Your task to perform on an android device: choose inbox layout in the gmail app Image 0: 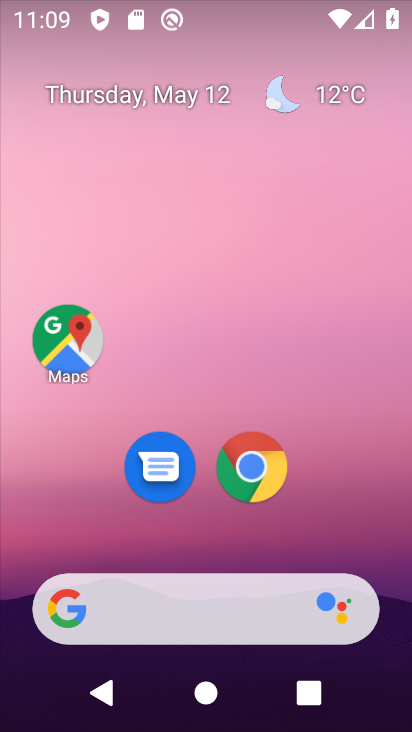
Step 0: drag from (322, 453) to (275, 18)
Your task to perform on an android device: choose inbox layout in the gmail app Image 1: 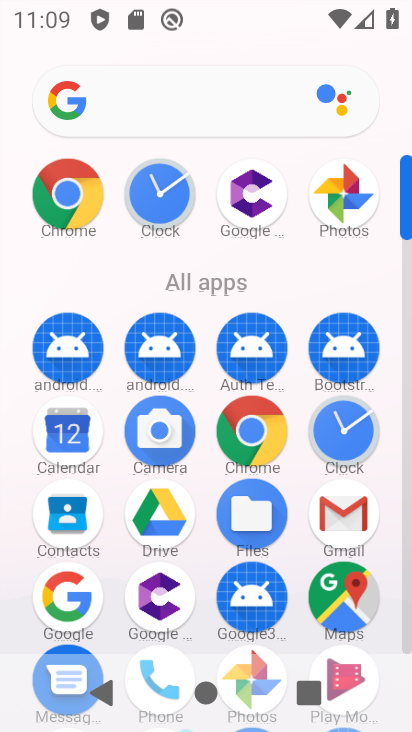
Step 1: drag from (11, 594) to (10, 303)
Your task to perform on an android device: choose inbox layout in the gmail app Image 2: 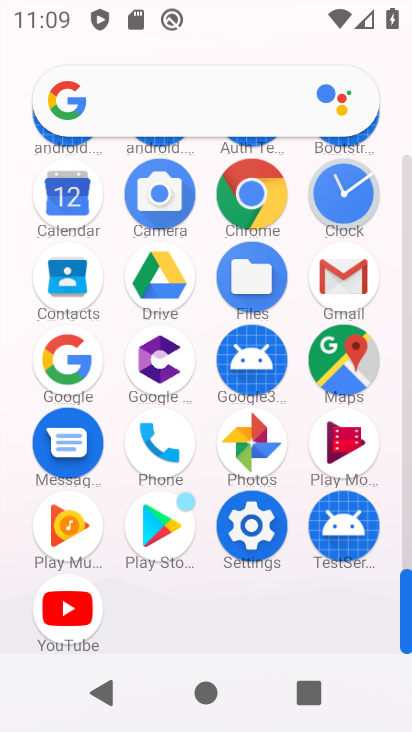
Step 2: click (347, 270)
Your task to perform on an android device: choose inbox layout in the gmail app Image 3: 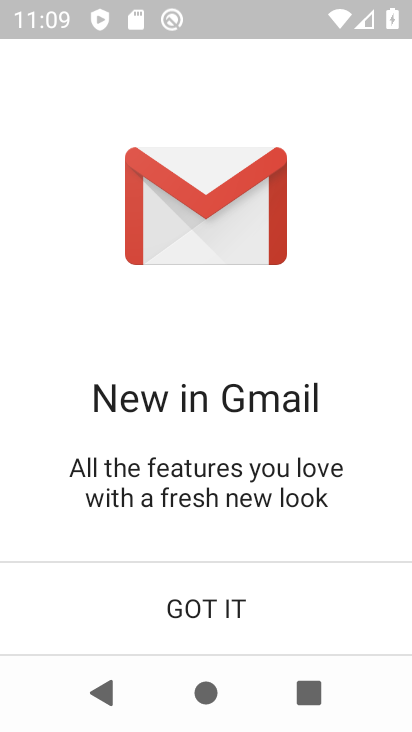
Step 3: click (250, 608)
Your task to perform on an android device: choose inbox layout in the gmail app Image 4: 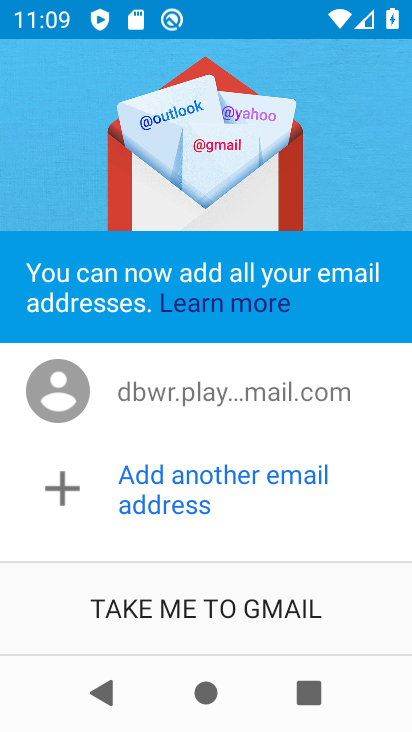
Step 4: click (250, 608)
Your task to perform on an android device: choose inbox layout in the gmail app Image 5: 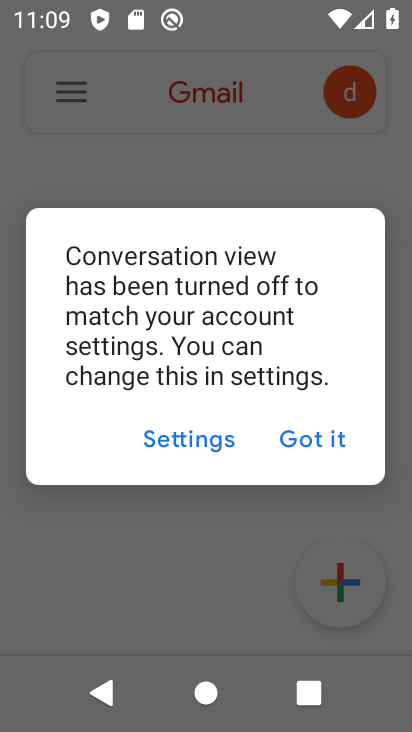
Step 5: click (285, 430)
Your task to perform on an android device: choose inbox layout in the gmail app Image 6: 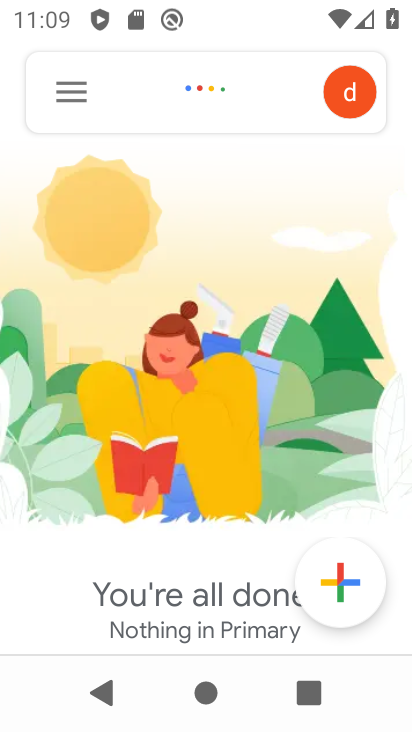
Step 6: click (59, 79)
Your task to perform on an android device: choose inbox layout in the gmail app Image 7: 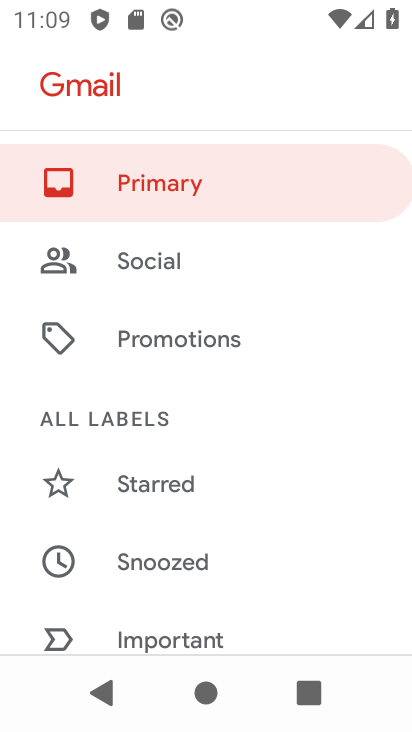
Step 7: drag from (239, 531) to (271, 98)
Your task to perform on an android device: choose inbox layout in the gmail app Image 8: 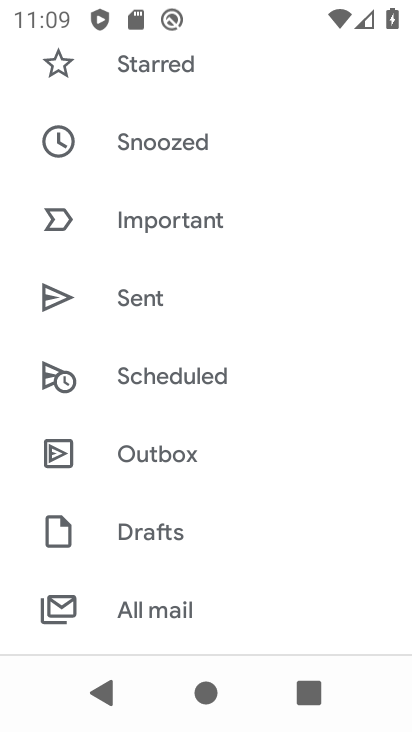
Step 8: drag from (275, 569) to (283, 128)
Your task to perform on an android device: choose inbox layout in the gmail app Image 9: 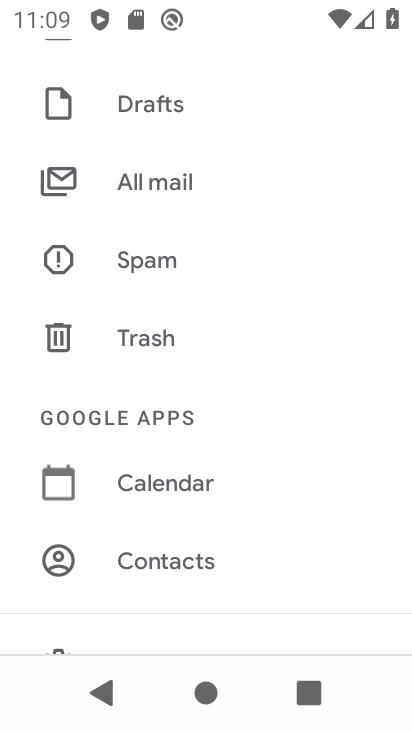
Step 9: drag from (234, 555) to (261, 156)
Your task to perform on an android device: choose inbox layout in the gmail app Image 10: 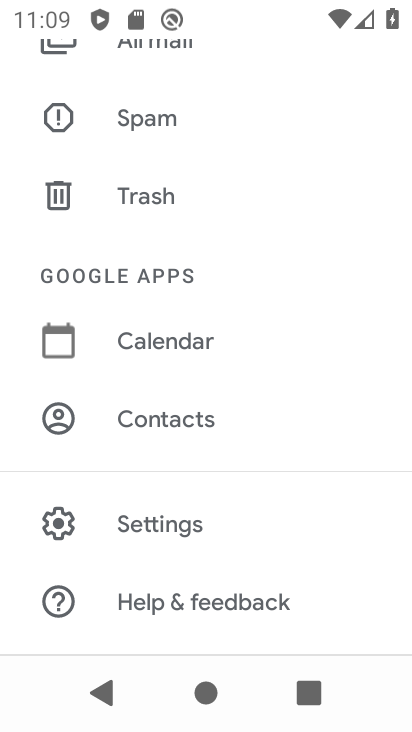
Step 10: click (179, 519)
Your task to perform on an android device: choose inbox layout in the gmail app Image 11: 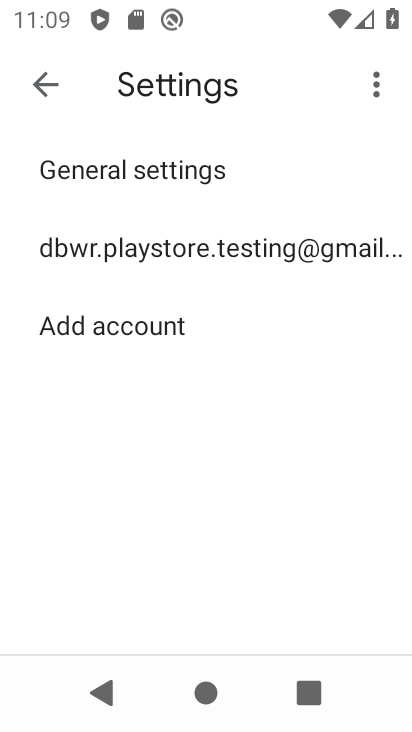
Step 11: click (208, 249)
Your task to perform on an android device: choose inbox layout in the gmail app Image 12: 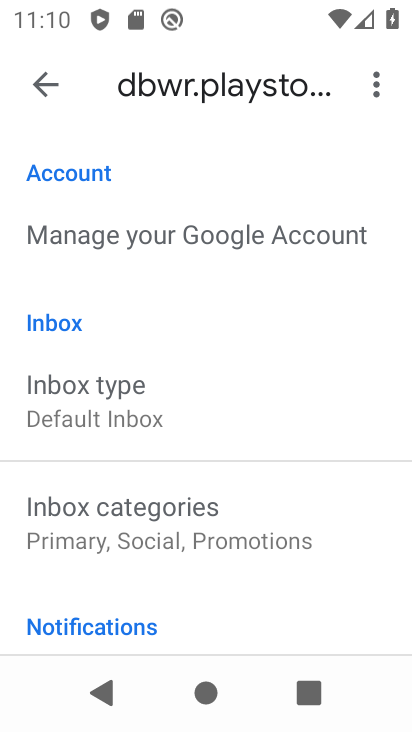
Step 12: click (136, 406)
Your task to perform on an android device: choose inbox layout in the gmail app Image 13: 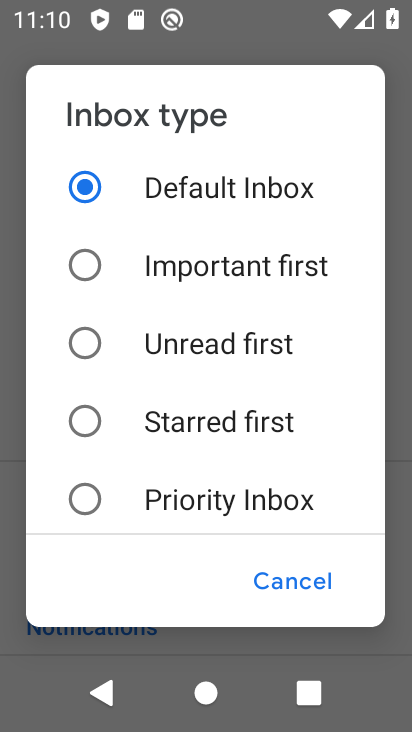
Step 13: click (200, 263)
Your task to perform on an android device: choose inbox layout in the gmail app Image 14: 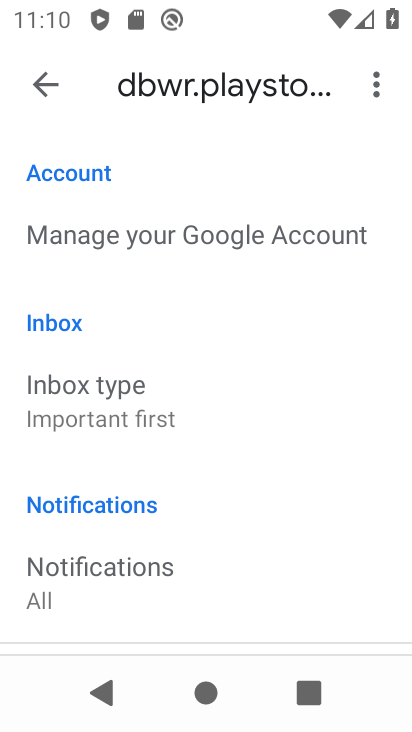
Step 14: task complete